Your task to perform on an android device: Show me recent news Image 0: 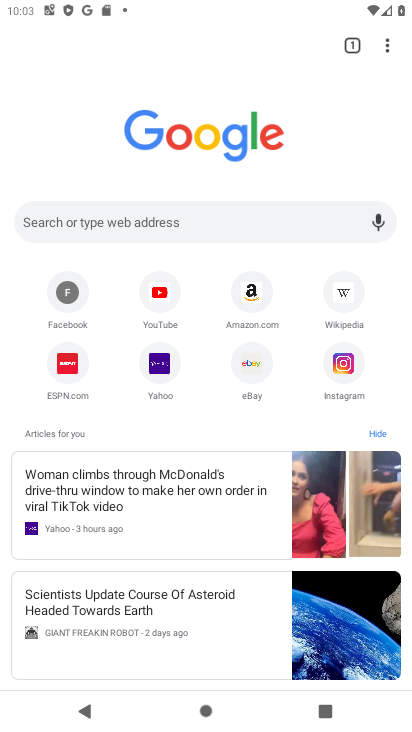
Step 0: press home button
Your task to perform on an android device: Show me recent news Image 1: 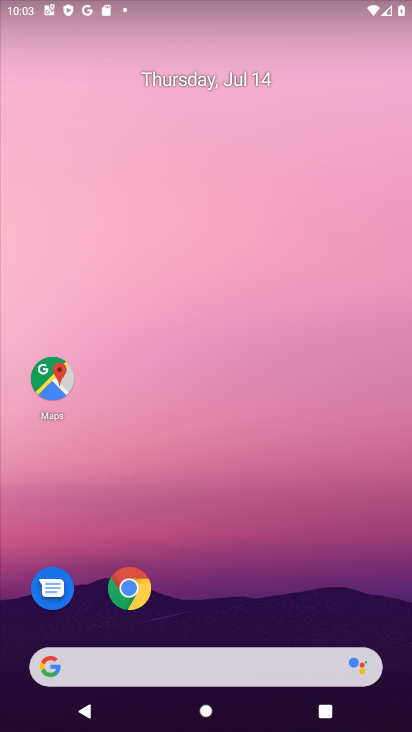
Step 1: click (155, 671)
Your task to perform on an android device: Show me recent news Image 2: 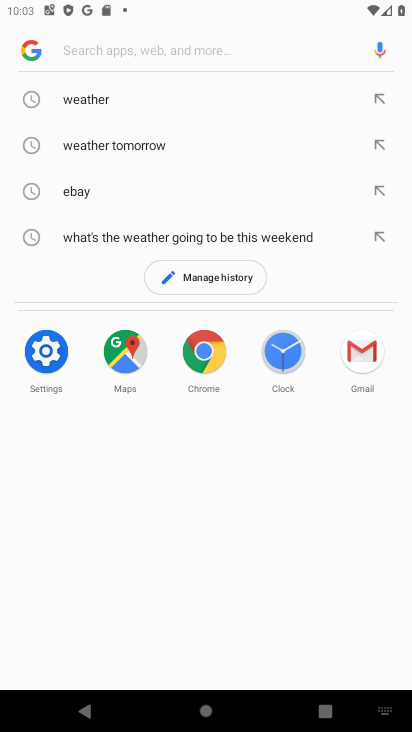
Step 2: type "recent news"
Your task to perform on an android device: Show me recent news Image 3: 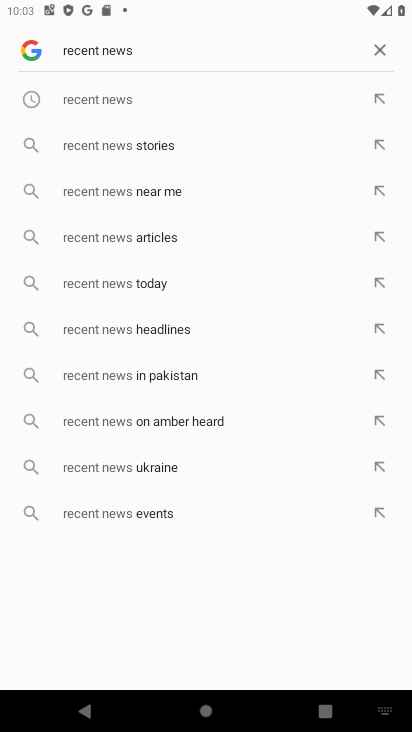
Step 3: click (102, 97)
Your task to perform on an android device: Show me recent news Image 4: 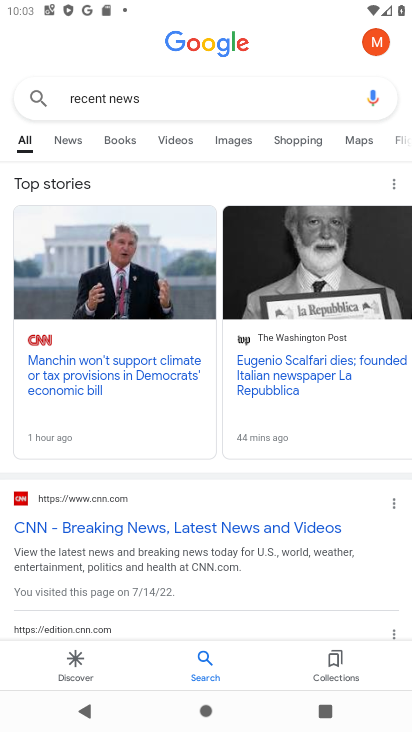
Step 4: click (76, 139)
Your task to perform on an android device: Show me recent news Image 5: 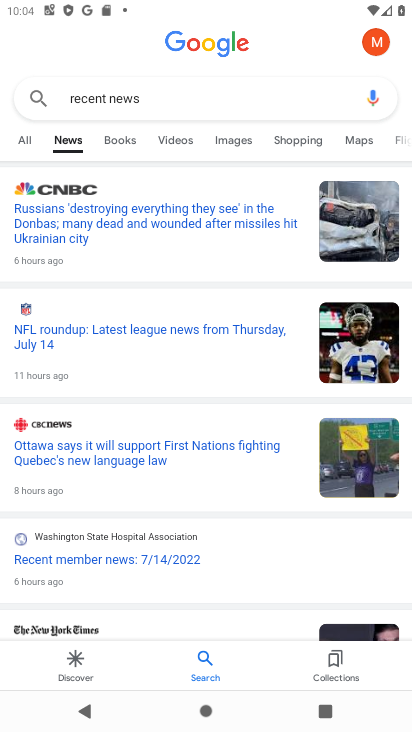
Step 5: task complete